Your task to perform on an android device: find photos in the google photos app Image 0: 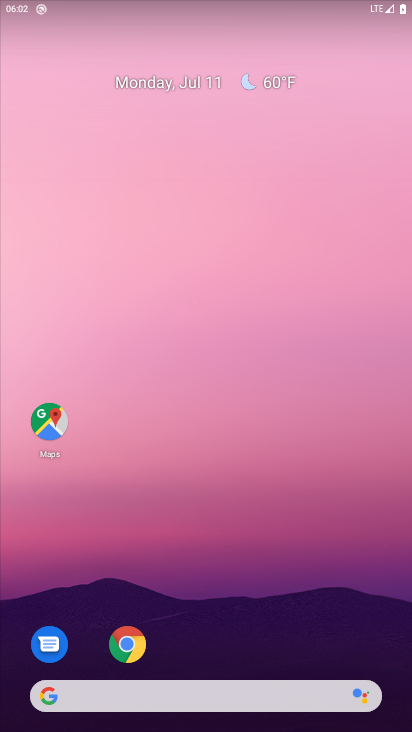
Step 0: drag from (245, 667) to (194, 272)
Your task to perform on an android device: find photos in the google photos app Image 1: 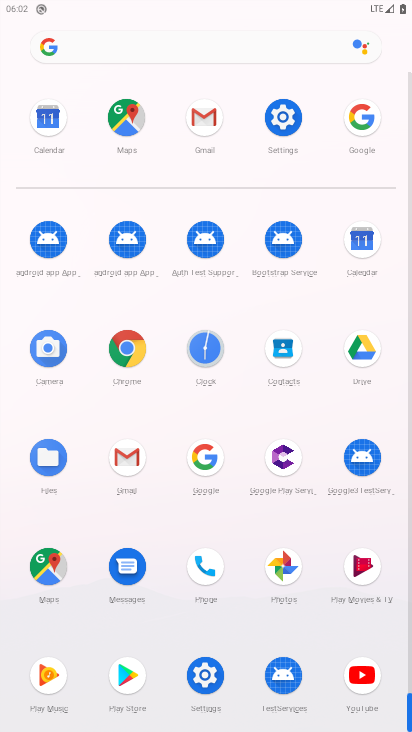
Step 1: click (276, 559)
Your task to perform on an android device: find photos in the google photos app Image 2: 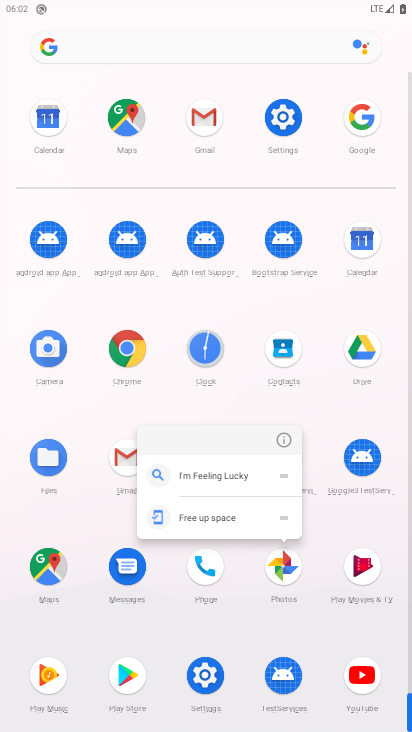
Step 2: click (280, 565)
Your task to perform on an android device: find photos in the google photos app Image 3: 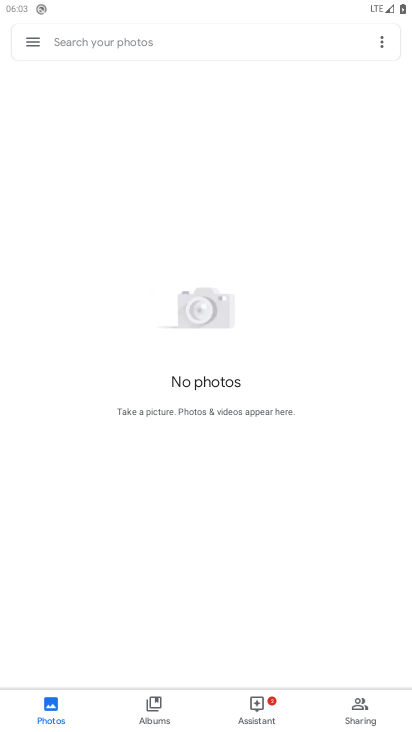
Step 3: task complete